Your task to perform on an android device: Do I have any events today? Image 0: 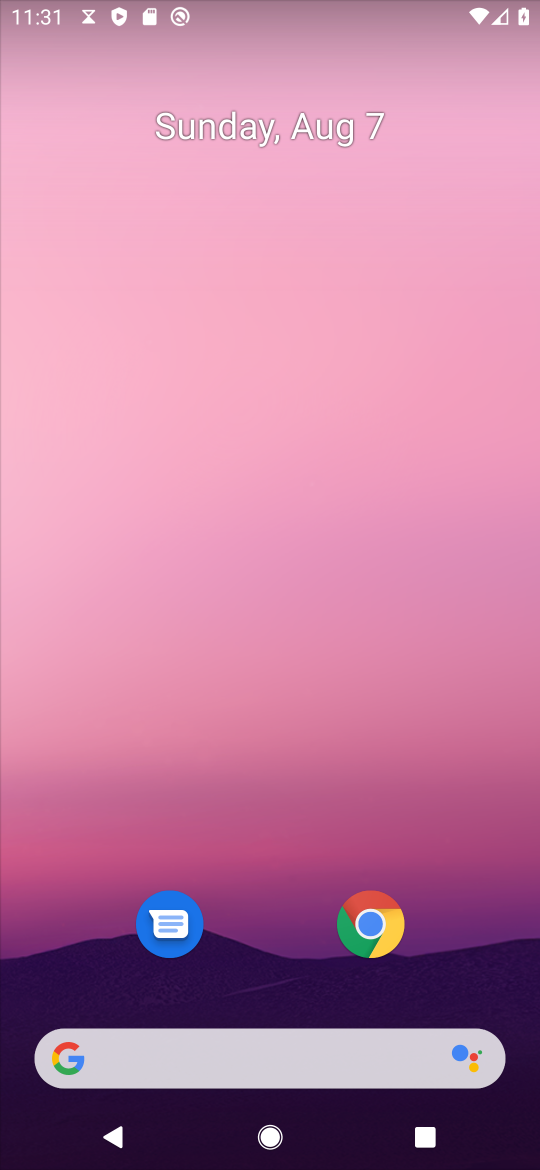
Step 0: drag from (264, 1050) to (191, 383)
Your task to perform on an android device: Do I have any events today? Image 1: 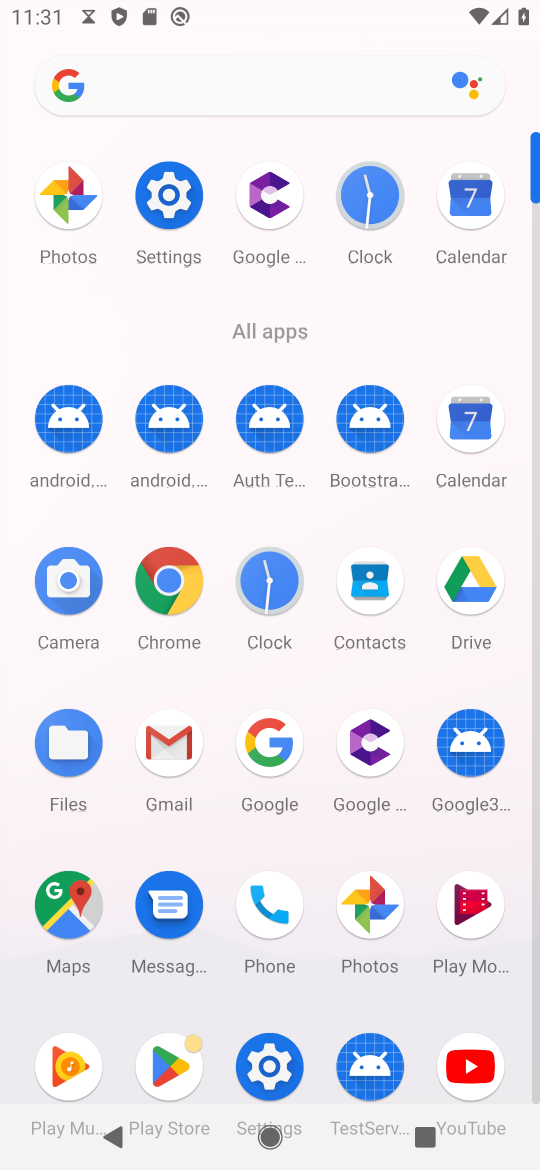
Step 1: click (488, 419)
Your task to perform on an android device: Do I have any events today? Image 2: 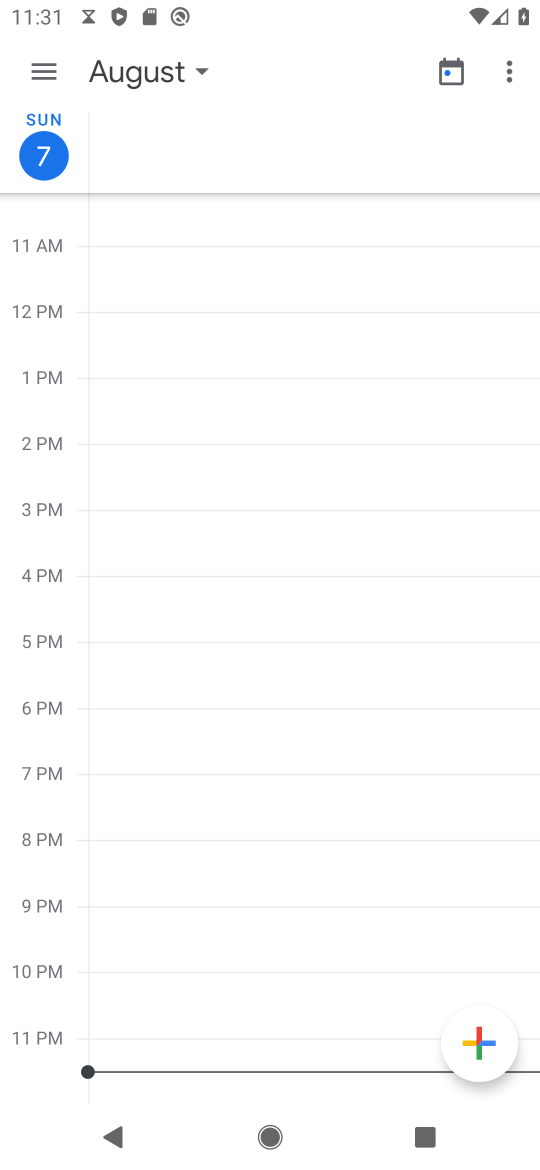
Step 2: click (138, 81)
Your task to perform on an android device: Do I have any events today? Image 3: 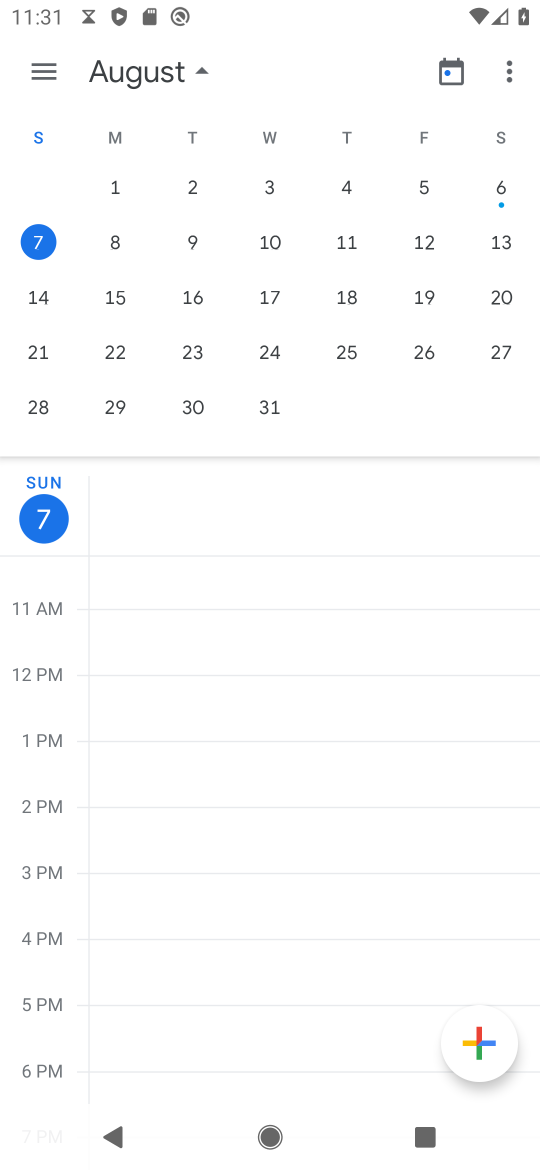
Step 3: click (42, 244)
Your task to perform on an android device: Do I have any events today? Image 4: 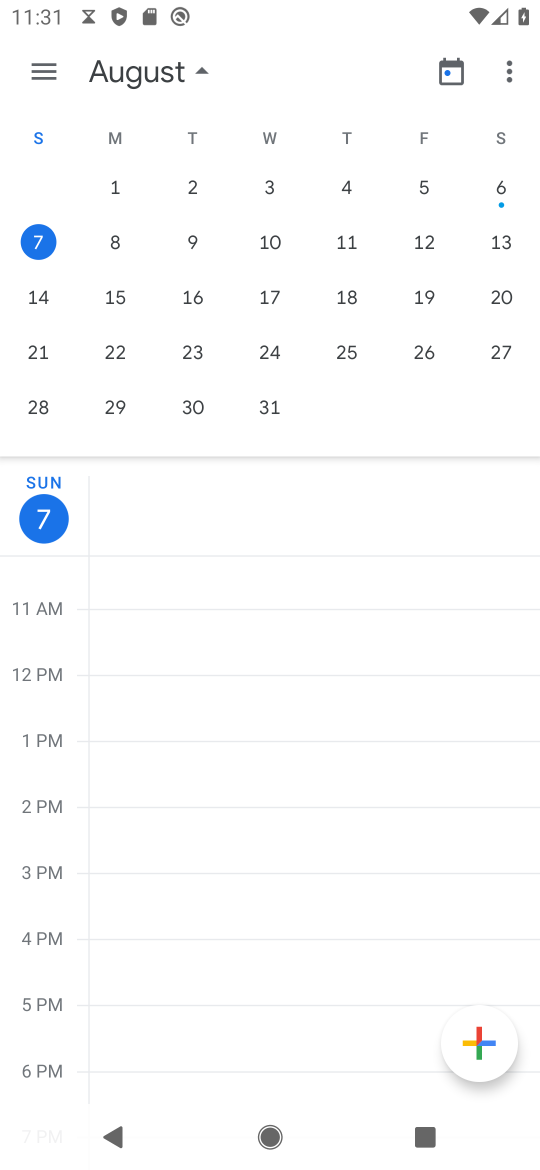
Step 4: task complete